Your task to perform on an android device: turn pop-ups off in chrome Image 0: 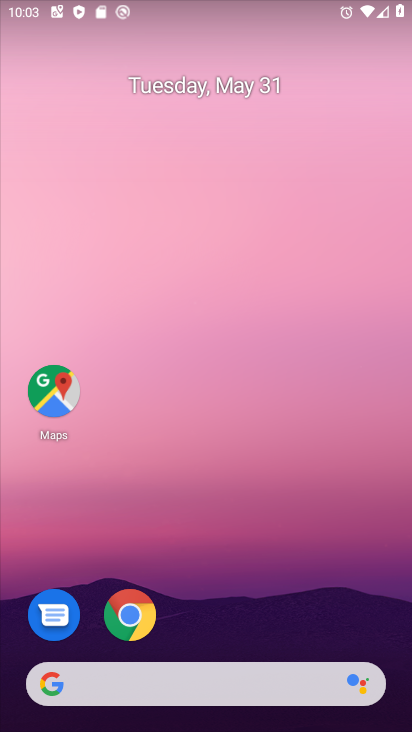
Step 0: drag from (254, 428) to (55, 191)
Your task to perform on an android device: turn pop-ups off in chrome Image 1: 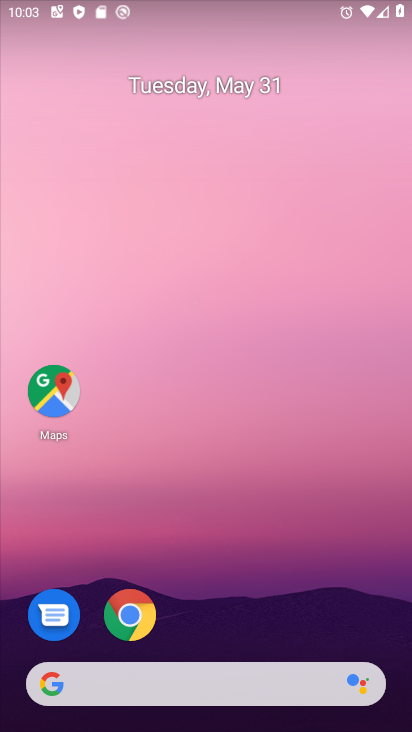
Step 1: drag from (333, 389) to (396, 354)
Your task to perform on an android device: turn pop-ups off in chrome Image 2: 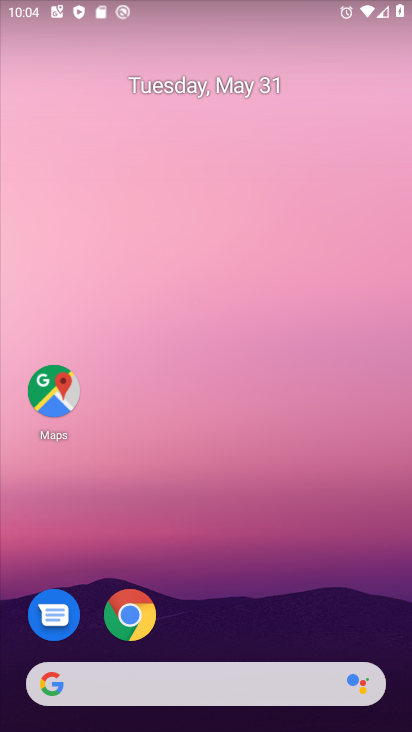
Step 2: drag from (379, 602) to (405, 103)
Your task to perform on an android device: turn pop-ups off in chrome Image 3: 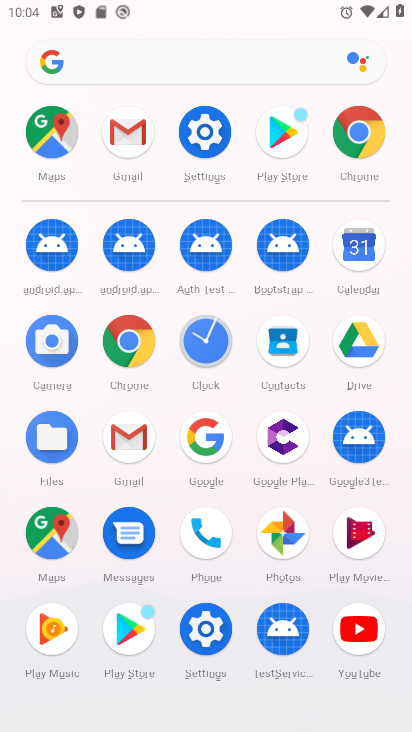
Step 3: click (342, 138)
Your task to perform on an android device: turn pop-ups off in chrome Image 4: 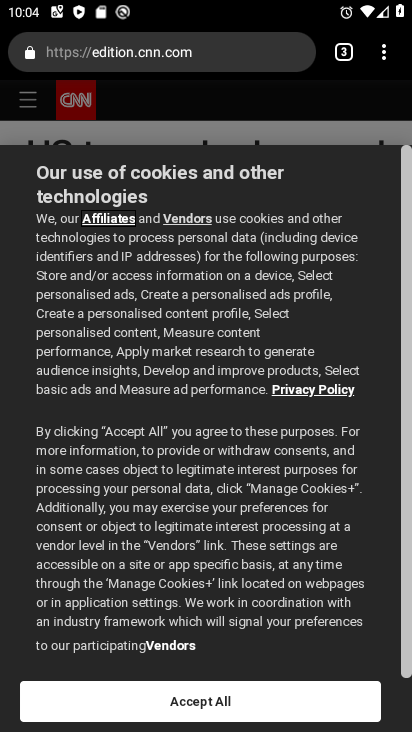
Step 4: drag from (382, 58) to (246, 567)
Your task to perform on an android device: turn pop-ups off in chrome Image 5: 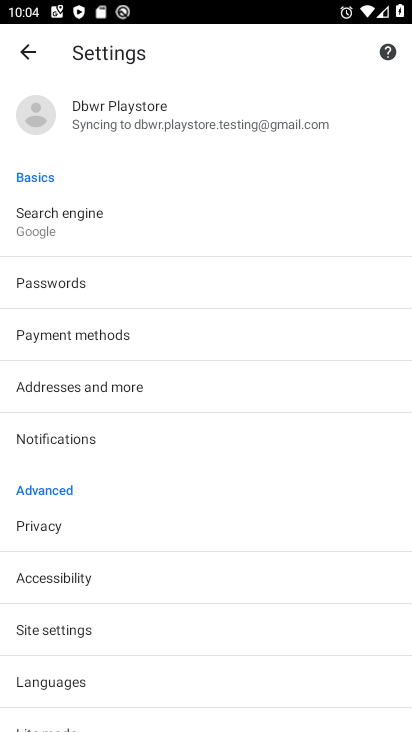
Step 5: drag from (247, 565) to (270, 15)
Your task to perform on an android device: turn pop-ups off in chrome Image 6: 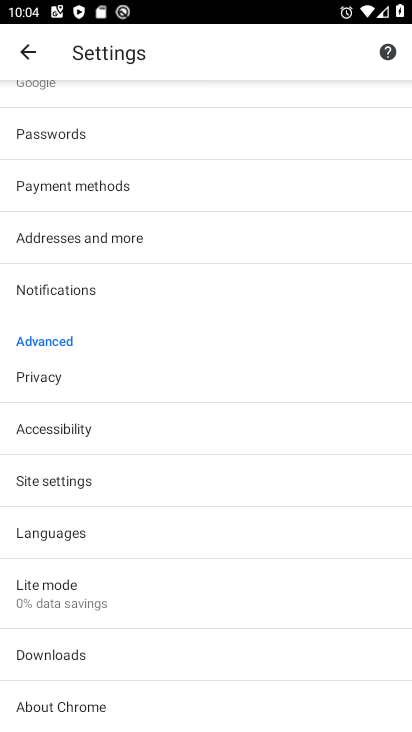
Step 6: click (101, 481)
Your task to perform on an android device: turn pop-ups off in chrome Image 7: 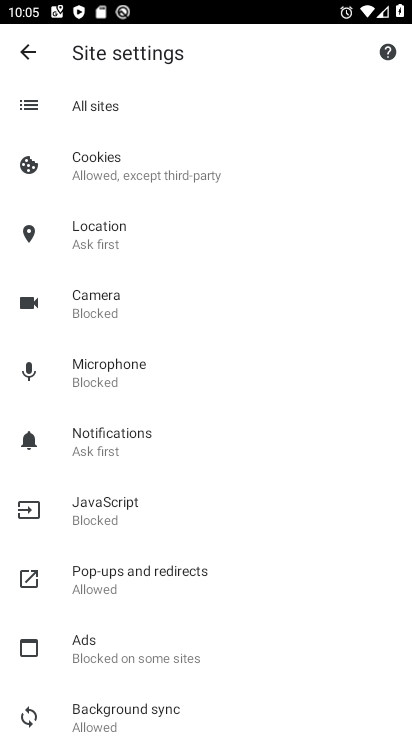
Step 7: click (155, 573)
Your task to perform on an android device: turn pop-ups off in chrome Image 8: 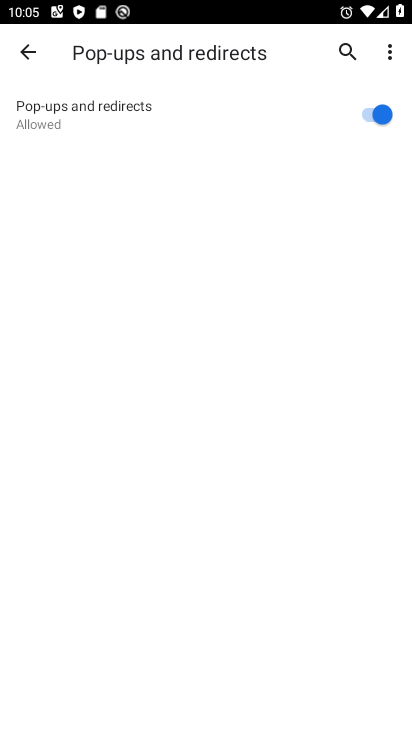
Step 8: click (354, 97)
Your task to perform on an android device: turn pop-ups off in chrome Image 9: 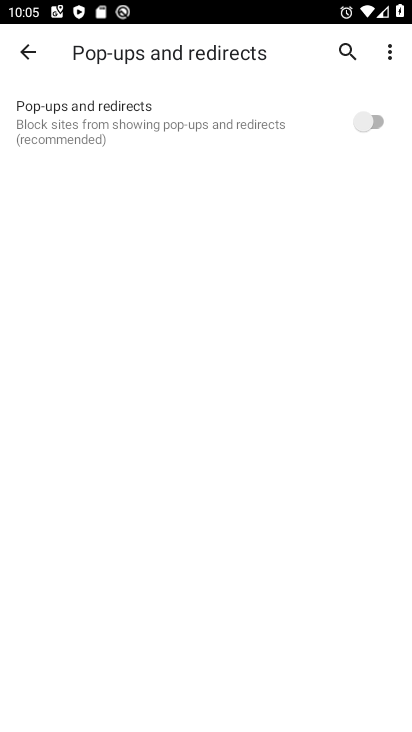
Step 9: task complete